Your task to perform on an android device: toggle airplane mode Image 0: 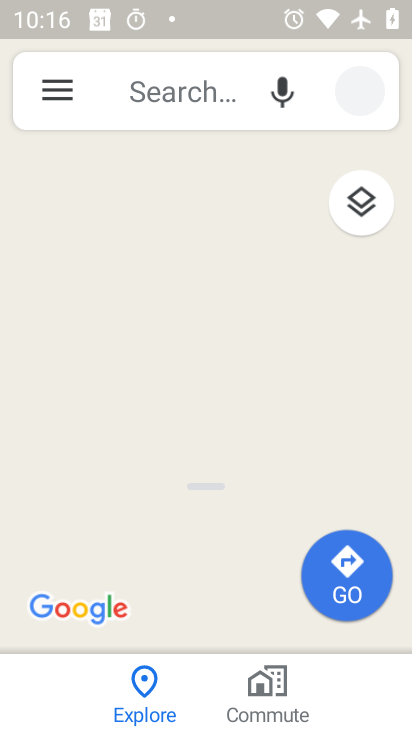
Step 0: press home button
Your task to perform on an android device: toggle airplane mode Image 1: 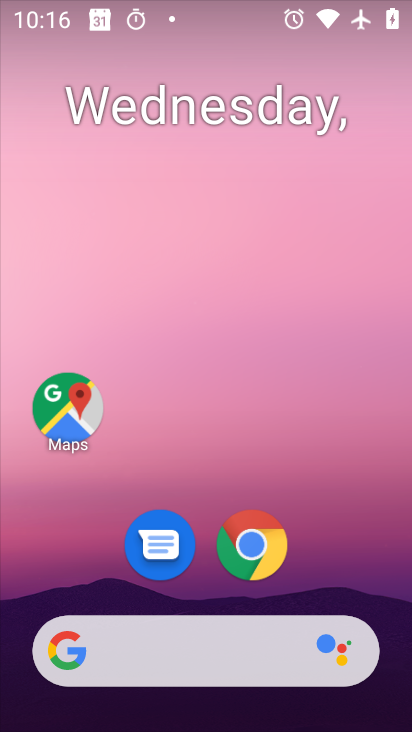
Step 1: drag from (187, 644) to (321, 117)
Your task to perform on an android device: toggle airplane mode Image 2: 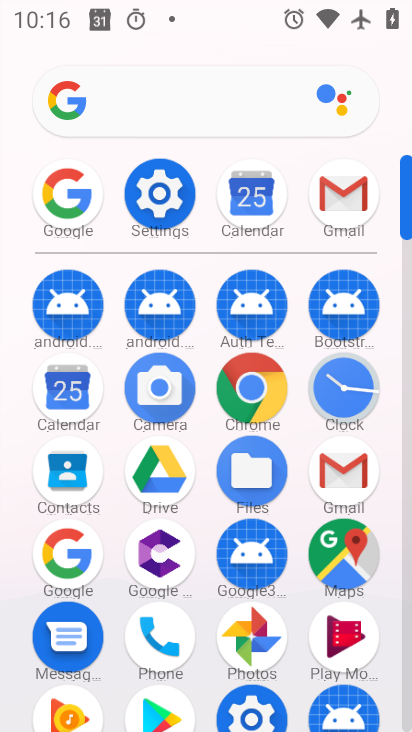
Step 2: click (172, 194)
Your task to perform on an android device: toggle airplane mode Image 3: 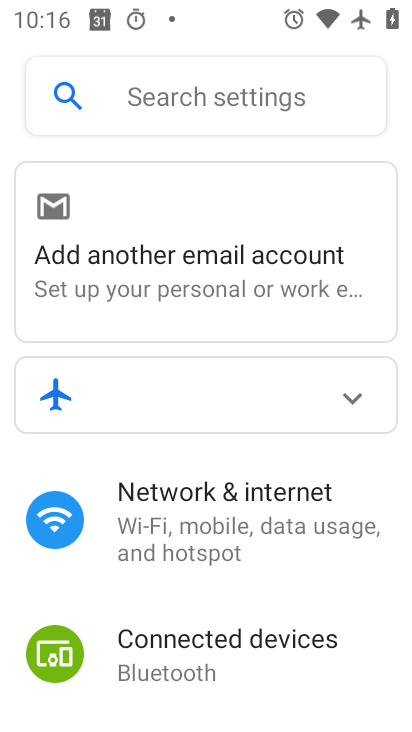
Step 3: click (213, 493)
Your task to perform on an android device: toggle airplane mode Image 4: 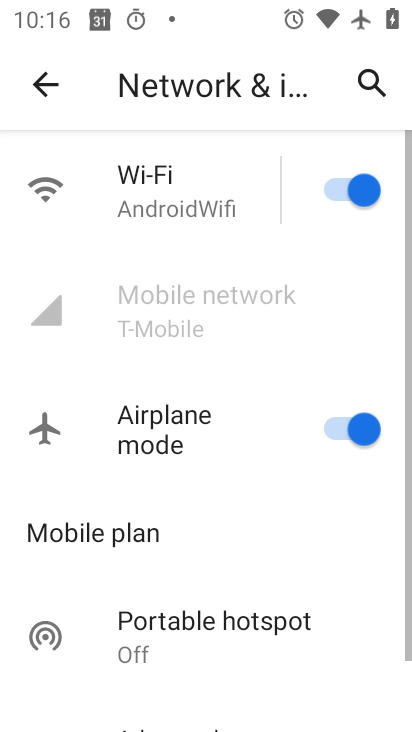
Step 4: click (344, 427)
Your task to perform on an android device: toggle airplane mode Image 5: 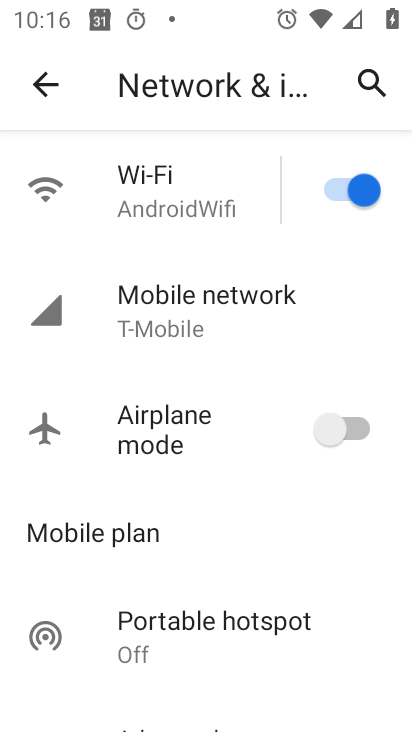
Step 5: task complete